Your task to perform on an android device: Go to Amazon Image 0: 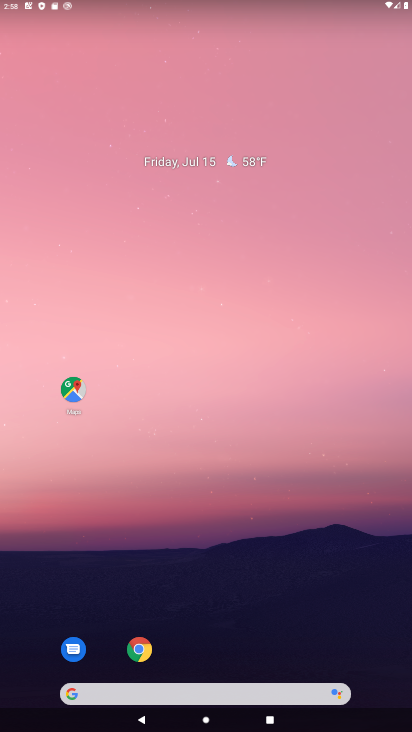
Step 0: click (134, 644)
Your task to perform on an android device: Go to Amazon Image 1: 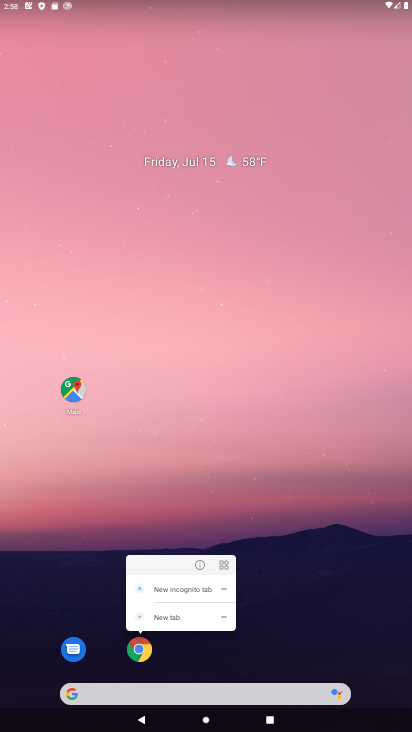
Step 1: click (143, 649)
Your task to perform on an android device: Go to Amazon Image 2: 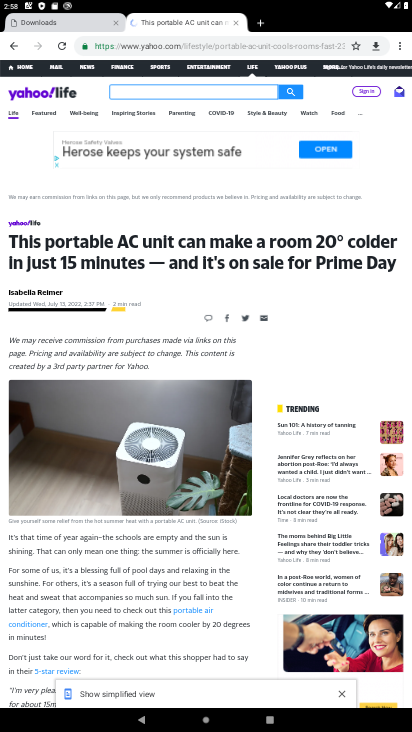
Step 2: click (401, 58)
Your task to perform on an android device: Go to Amazon Image 3: 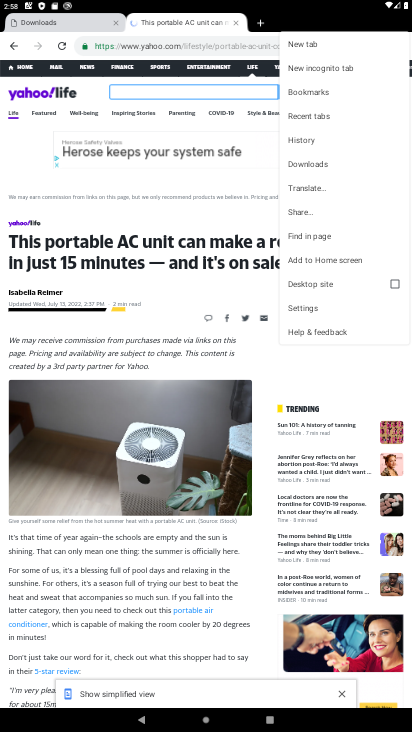
Step 3: click (299, 44)
Your task to perform on an android device: Go to Amazon Image 4: 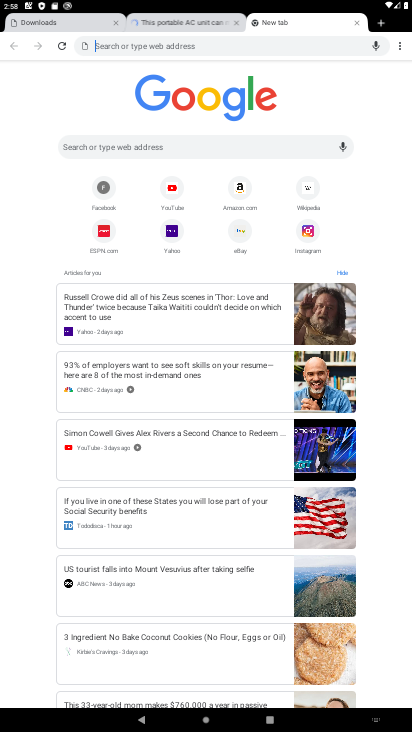
Step 4: click (238, 189)
Your task to perform on an android device: Go to Amazon Image 5: 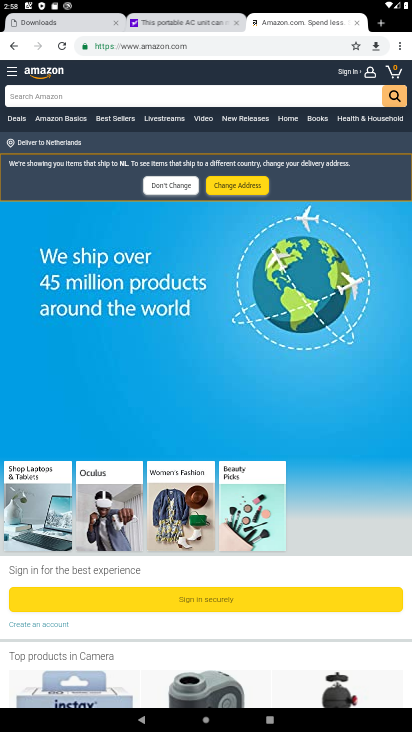
Step 5: task complete